Your task to perform on an android device: open app "Chime – Mobile Banking" (install if not already installed) and enter user name: "bullfrog@inbox.com" and password: "breaker" Image 0: 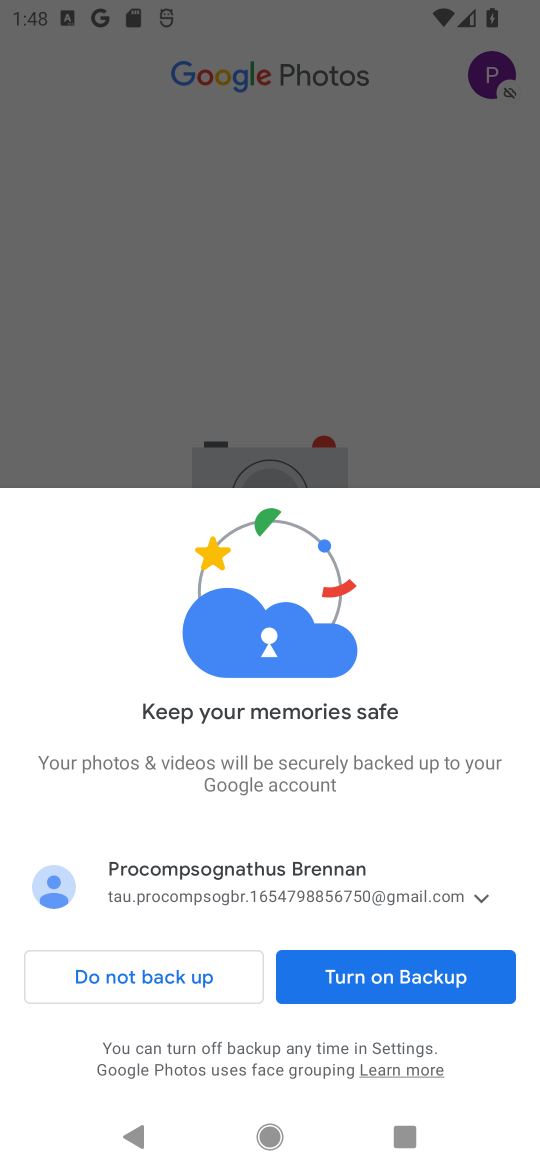
Step 0: press back button
Your task to perform on an android device: open app "Chime – Mobile Banking" (install if not already installed) and enter user name: "bullfrog@inbox.com" and password: "breaker" Image 1: 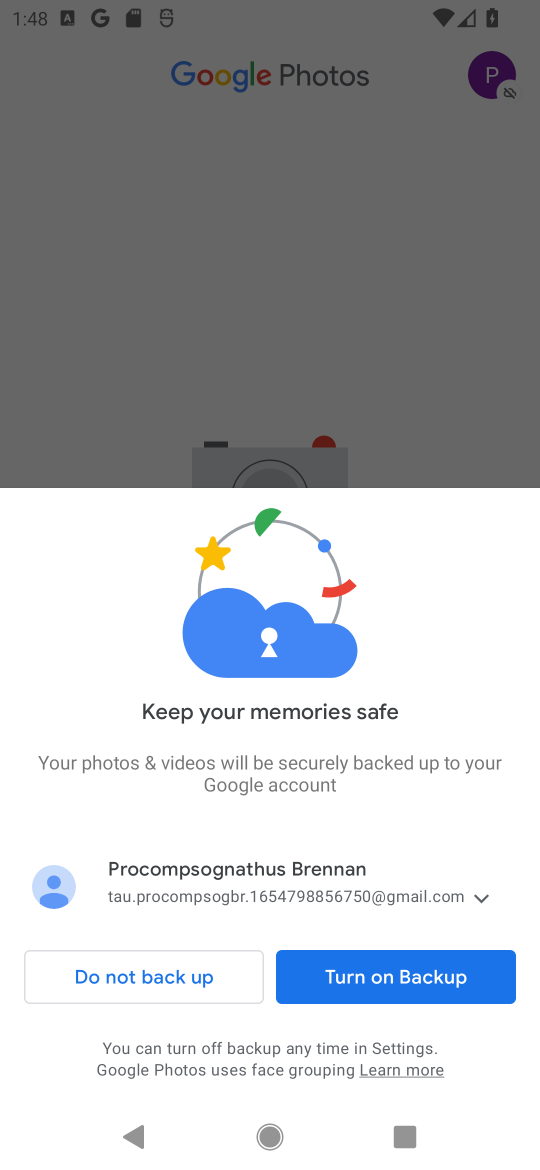
Step 1: press home button
Your task to perform on an android device: open app "Chime – Mobile Banking" (install if not already installed) and enter user name: "bullfrog@inbox.com" and password: "breaker" Image 2: 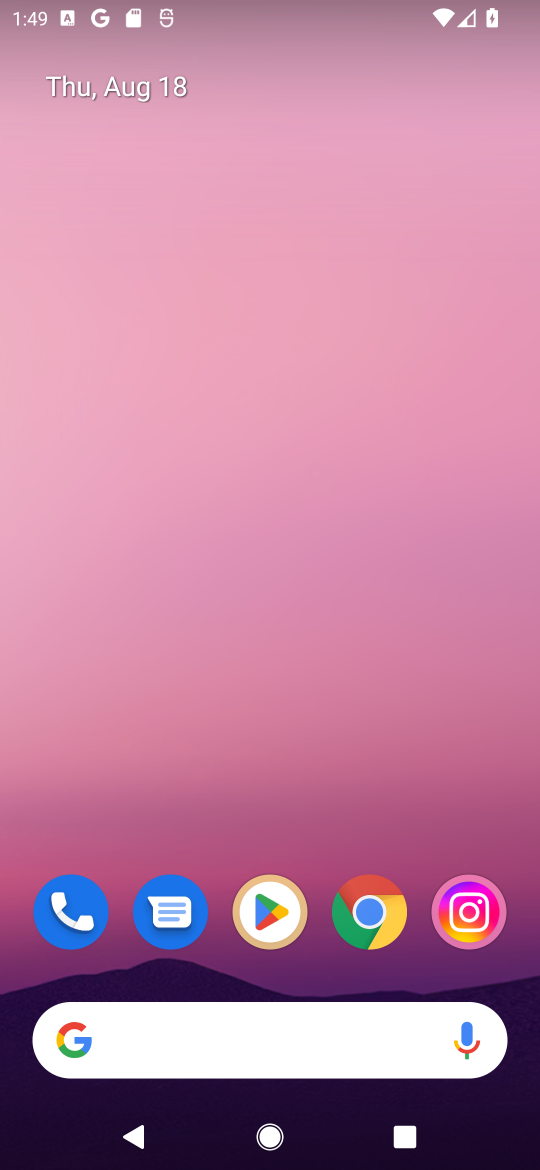
Step 2: click (279, 918)
Your task to perform on an android device: open app "Chime – Mobile Banking" (install if not already installed) and enter user name: "bullfrog@inbox.com" and password: "breaker" Image 3: 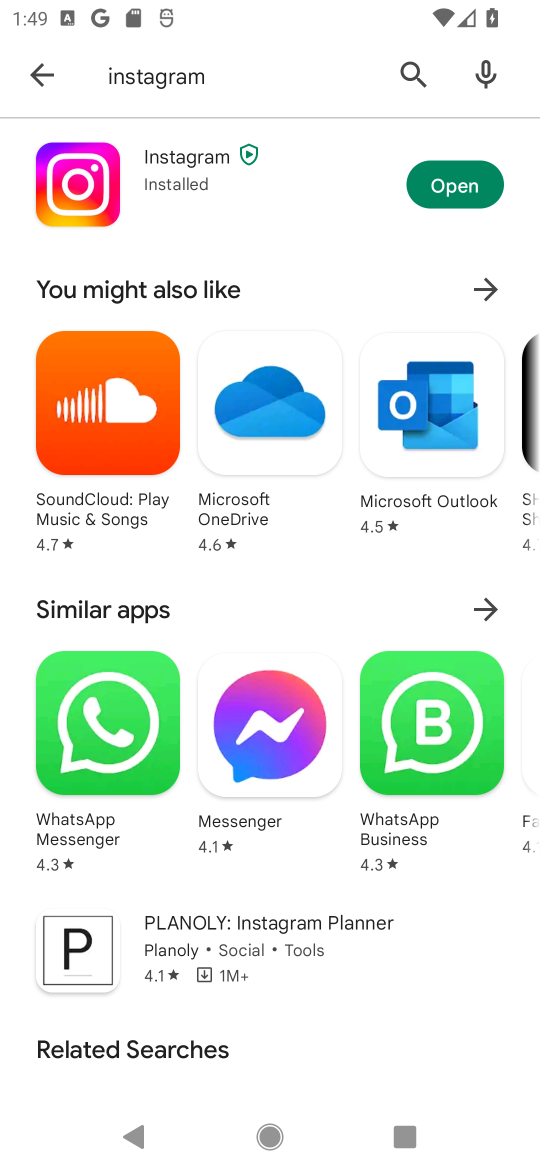
Step 3: click (428, 75)
Your task to perform on an android device: open app "Chime – Mobile Banking" (install if not already installed) and enter user name: "bullfrog@inbox.com" and password: "breaker" Image 4: 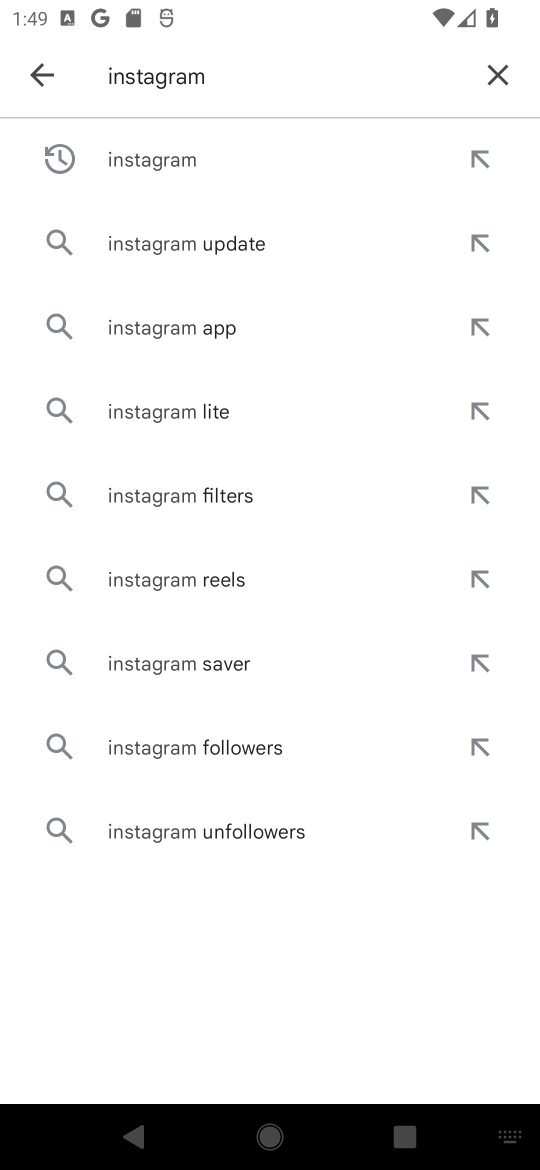
Step 4: click (506, 76)
Your task to perform on an android device: open app "Chime – Mobile Banking" (install if not already installed) and enter user name: "bullfrog@inbox.com" and password: "breaker" Image 5: 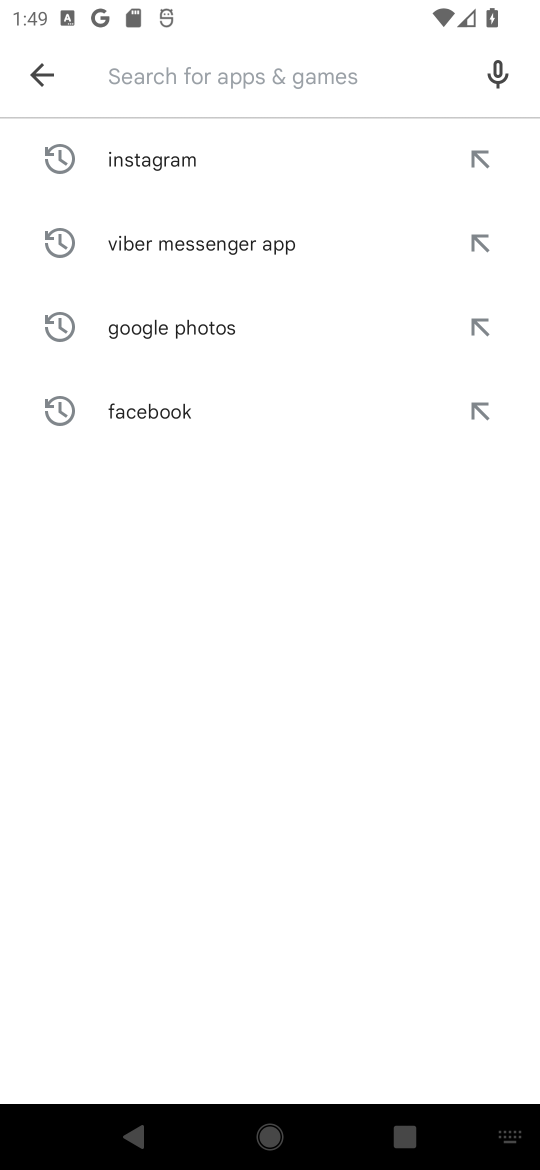
Step 5: click (183, 73)
Your task to perform on an android device: open app "Chime – Mobile Banking" (install if not already installed) and enter user name: "bullfrog@inbox.com" and password: "breaker" Image 6: 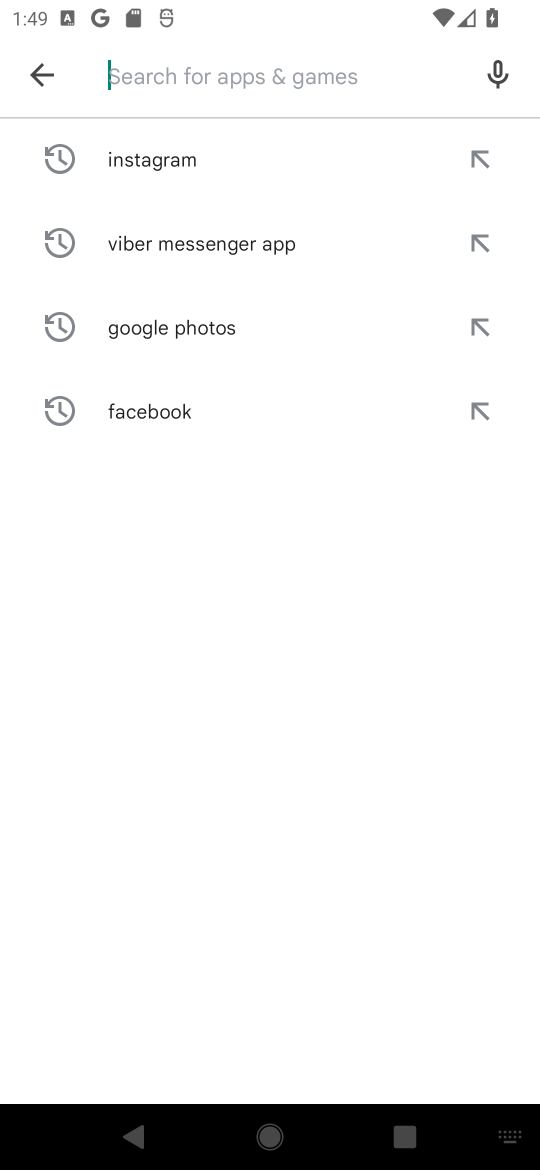
Step 6: type "chime"
Your task to perform on an android device: open app "Chime – Mobile Banking" (install if not already installed) and enter user name: "bullfrog@inbox.com" and password: "breaker" Image 7: 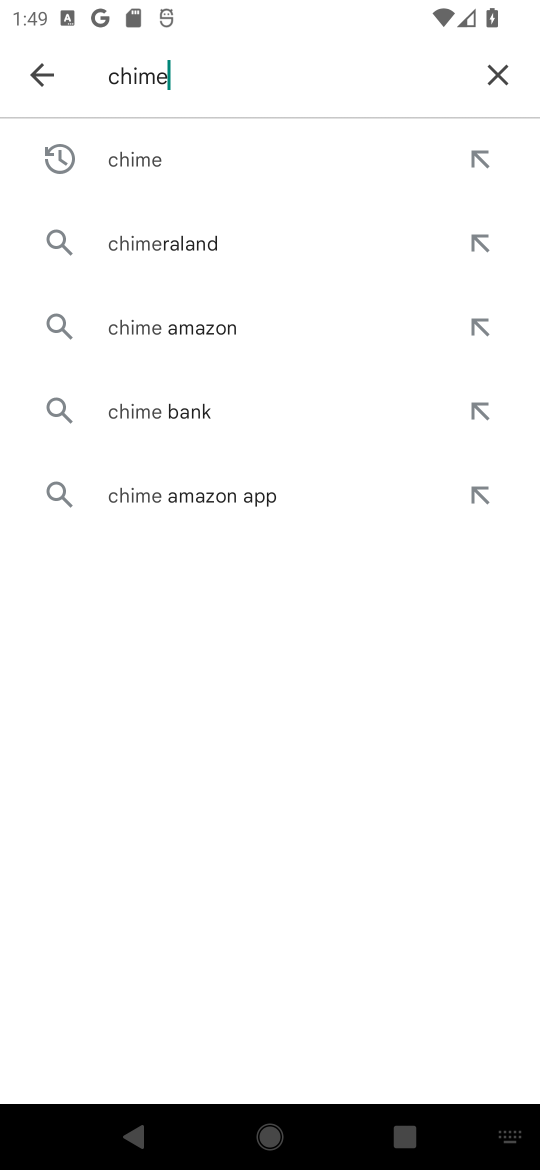
Step 7: click (129, 164)
Your task to perform on an android device: open app "Chime – Mobile Banking" (install if not already installed) and enter user name: "bullfrog@inbox.com" and password: "breaker" Image 8: 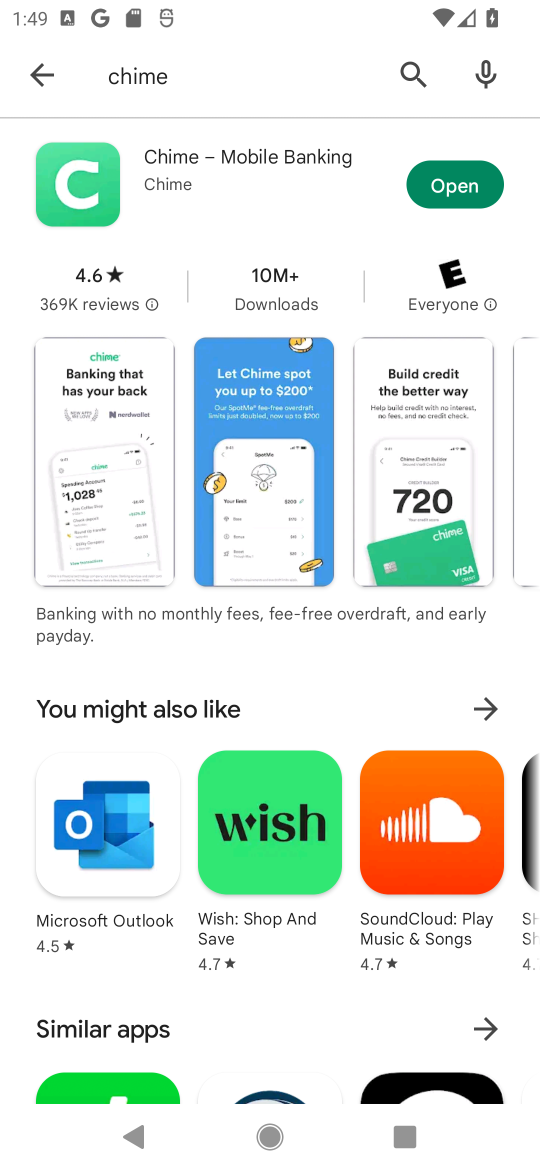
Step 8: click (450, 191)
Your task to perform on an android device: open app "Chime – Mobile Banking" (install if not already installed) and enter user name: "bullfrog@inbox.com" and password: "breaker" Image 9: 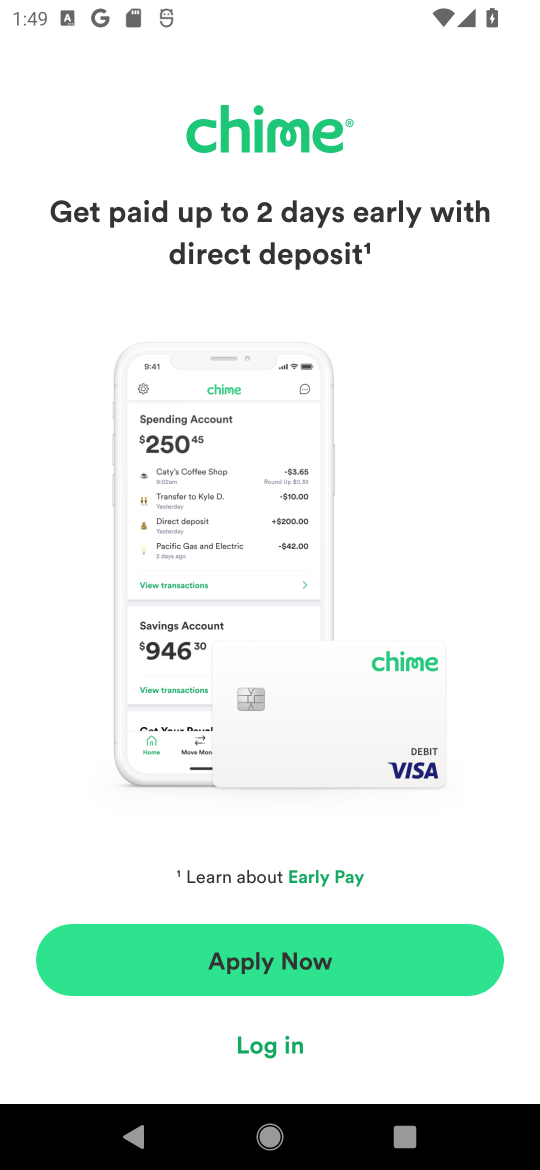
Step 9: click (282, 1053)
Your task to perform on an android device: open app "Chime – Mobile Banking" (install if not already installed) and enter user name: "bullfrog@inbox.com" and password: "breaker" Image 10: 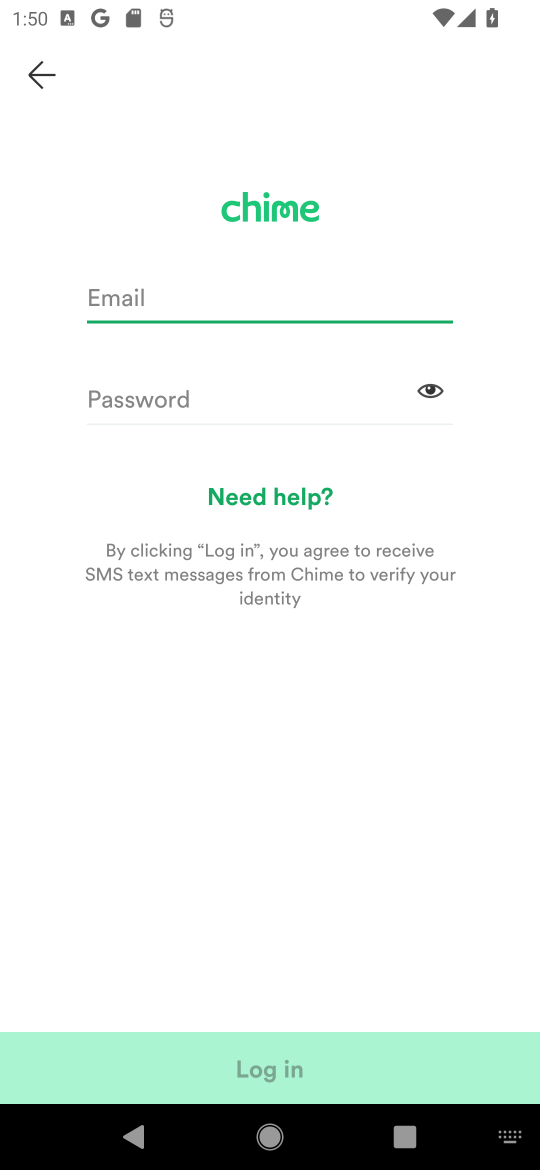
Step 10: click (126, 285)
Your task to perform on an android device: open app "Chime – Mobile Banking" (install if not already installed) and enter user name: "bullfrog@inbox.com" and password: "breaker" Image 11: 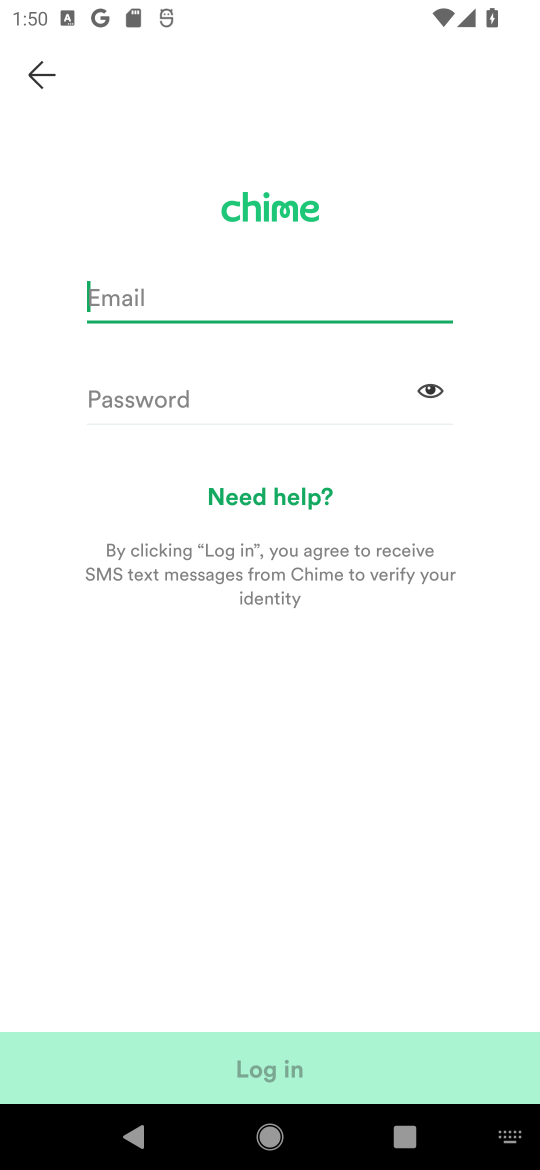
Step 11: type "bullfrog@inbox.com"
Your task to perform on an android device: open app "Chime – Mobile Banking" (install if not already installed) and enter user name: "bullfrog@inbox.com" and password: "breaker" Image 12: 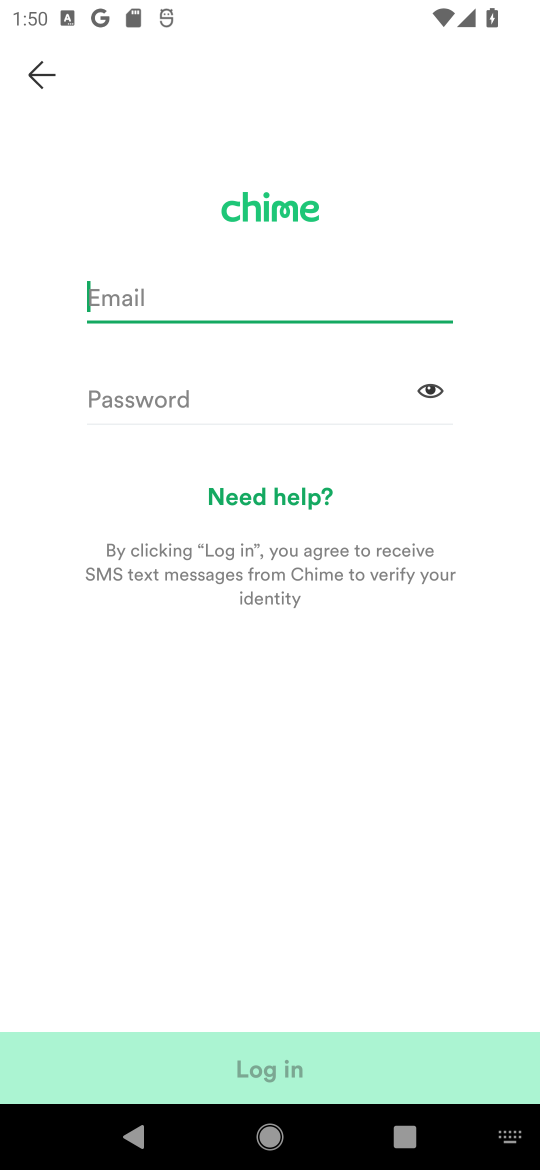
Step 12: click (244, 793)
Your task to perform on an android device: open app "Chime – Mobile Banking" (install if not already installed) and enter user name: "bullfrog@inbox.com" and password: "breaker" Image 13: 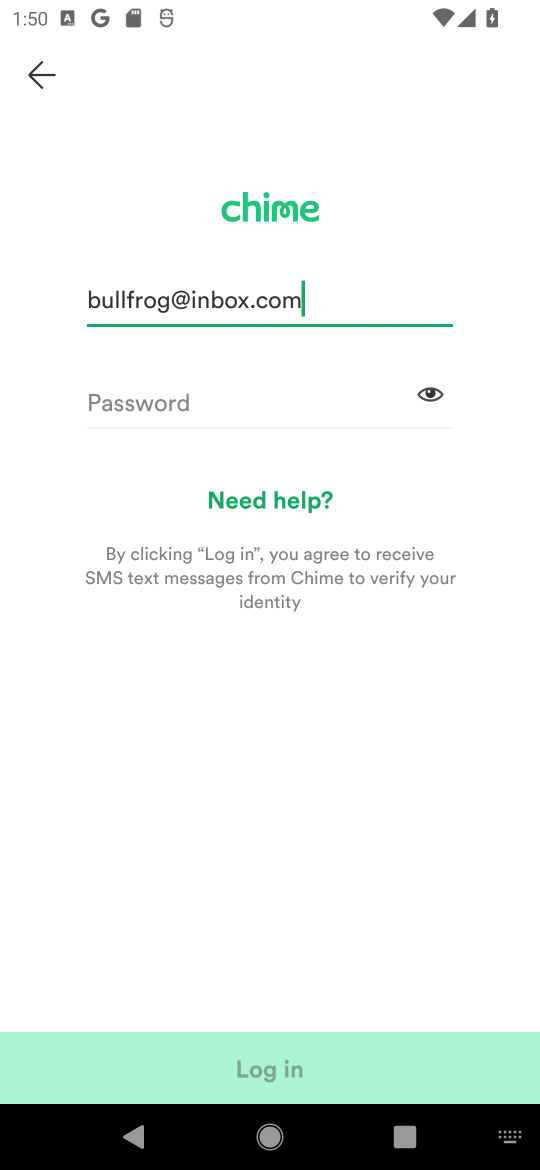
Step 13: click (154, 389)
Your task to perform on an android device: open app "Chime – Mobile Banking" (install if not already installed) and enter user name: "bullfrog@inbox.com" and password: "breaker" Image 14: 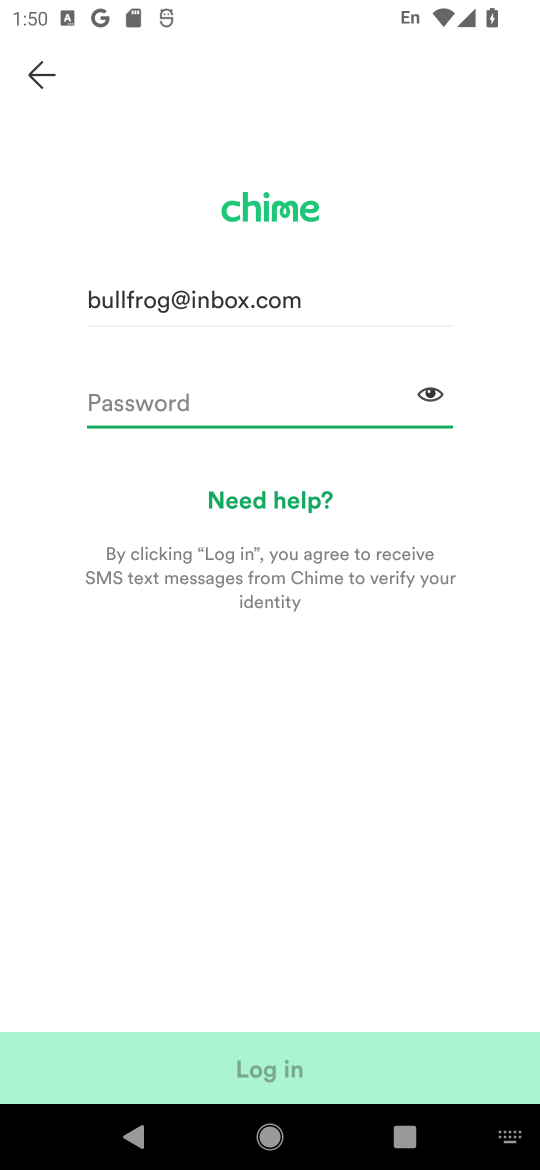
Step 14: type "breaker"
Your task to perform on an android device: open app "Chime – Mobile Banking" (install if not already installed) and enter user name: "bullfrog@inbox.com" and password: "breaker" Image 15: 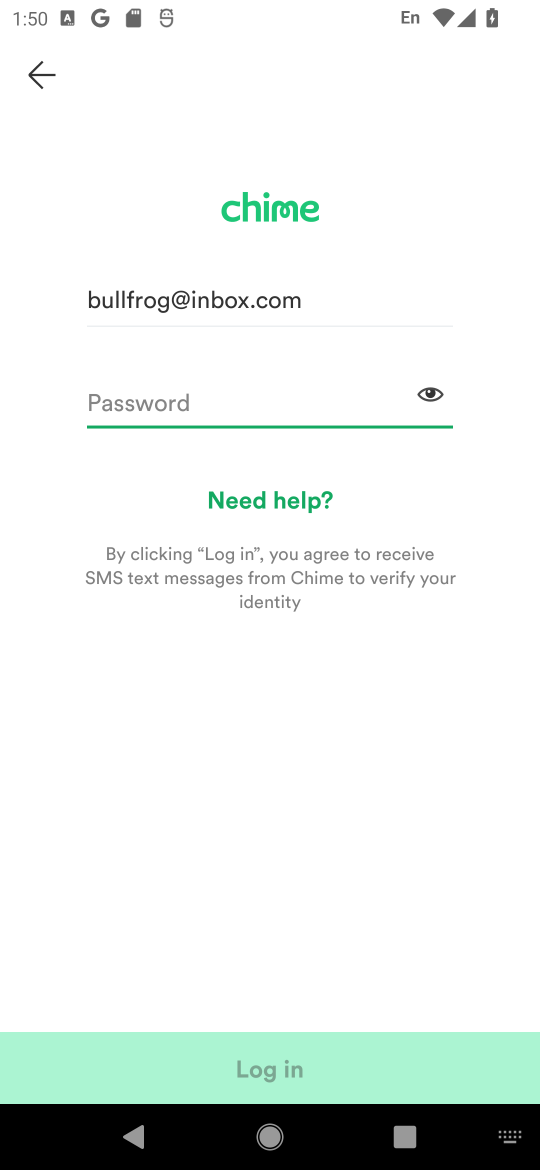
Step 15: click (339, 795)
Your task to perform on an android device: open app "Chime – Mobile Banking" (install if not already installed) and enter user name: "bullfrog@inbox.com" and password: "breaker" Image 16: 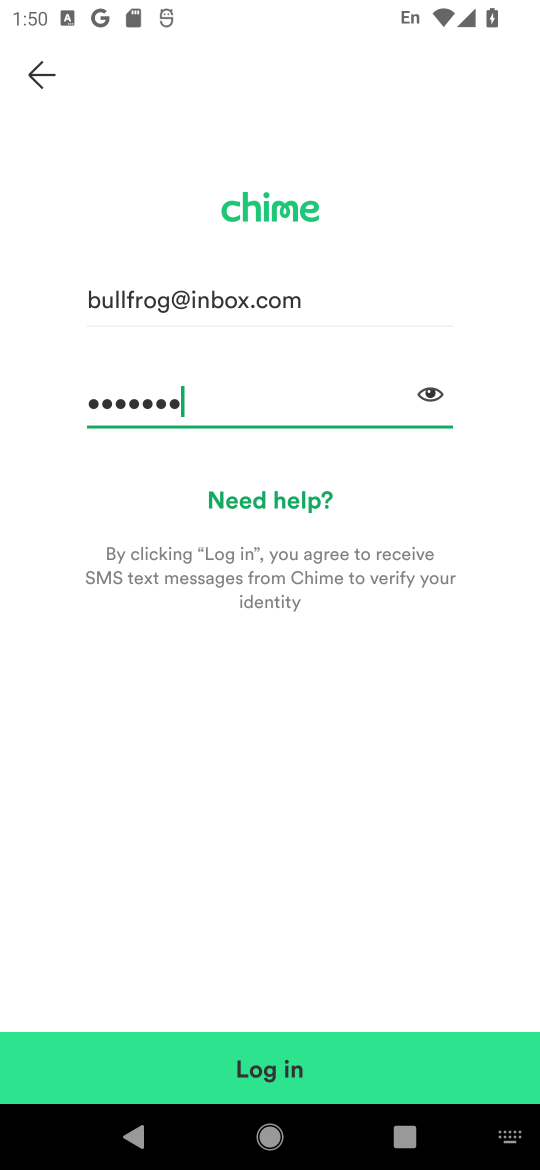
Step 16: task complete